Your task to perform on an android device: toggle data saver in the chrome app Image 0: 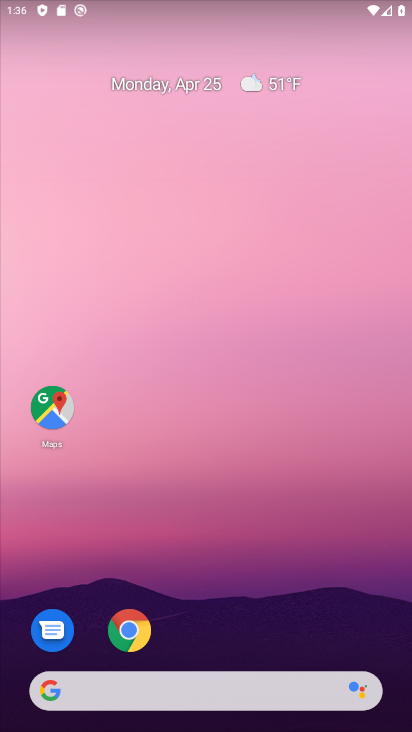
Step 0: drag from (316, 597) to (318, 58)
Your task to perform on an android device: toggle data saver in the chrome app Image 1: 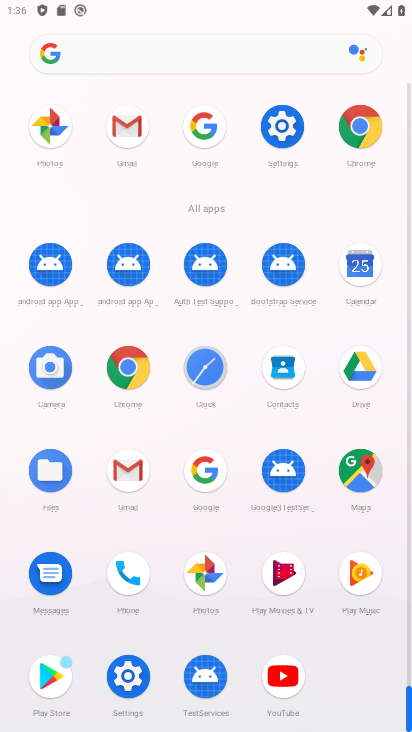
Step 1: click (375, 132)
Your task to perform on an android device: toggle data saver in the chrome app Image 2: 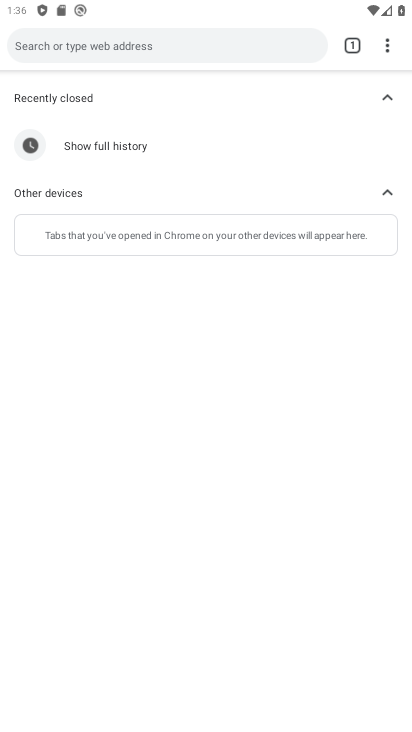
Step 2: click (388, 43)
Your task to perform on an android device: toggle data saver in the chrome app Image 3: 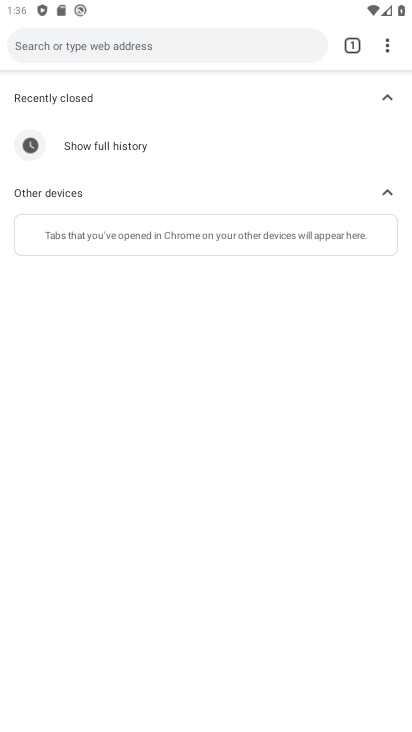
Step 3: drag from (388, 43) to (267, 365)
Your task to perform on an android device: toggle data saver in the chrome app Image 4: 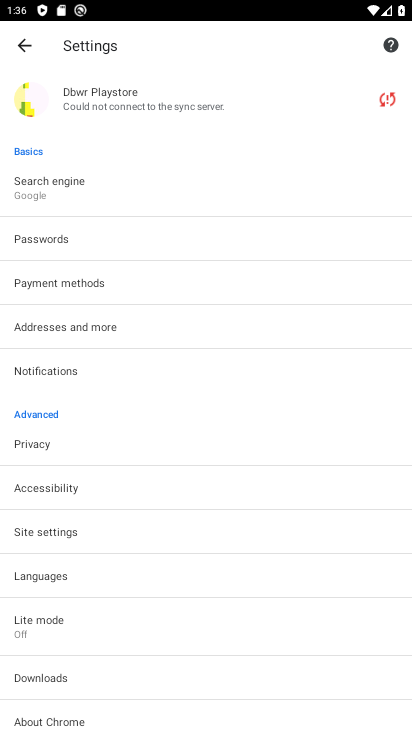
Step 4: drag from (183, 603) to (174, 226)
Your task to perform on an android device: toggle data saver in the chrome app Image 5: 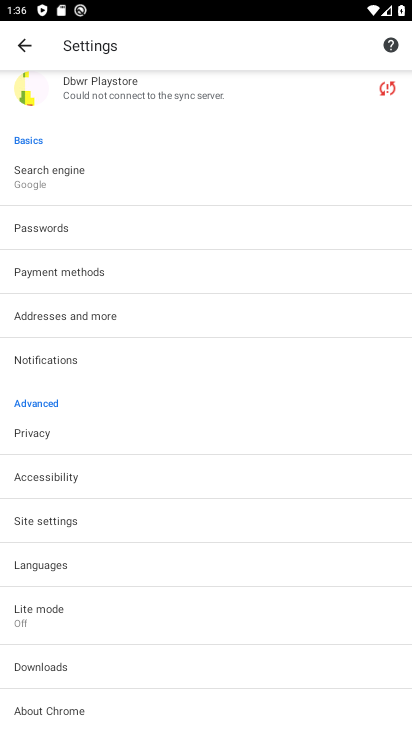
Step 5: click (66, 621)
Your task to perform on an android device: toggle data saver in the chrome app Image 6: 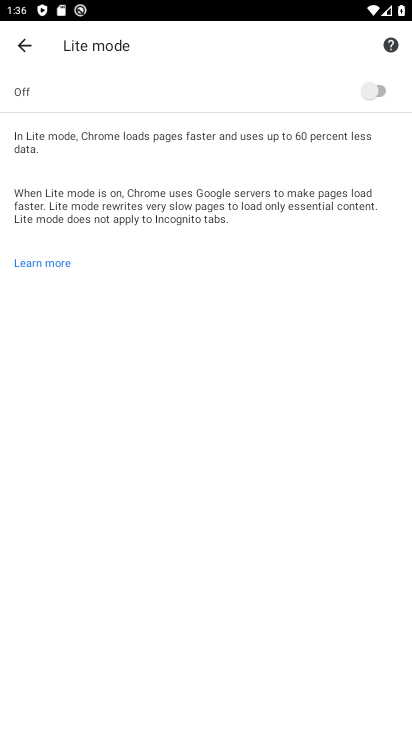
Step 6: click (377, 89)
Your task to perform on an android device: toggle data saver in the chrome app Image 7: 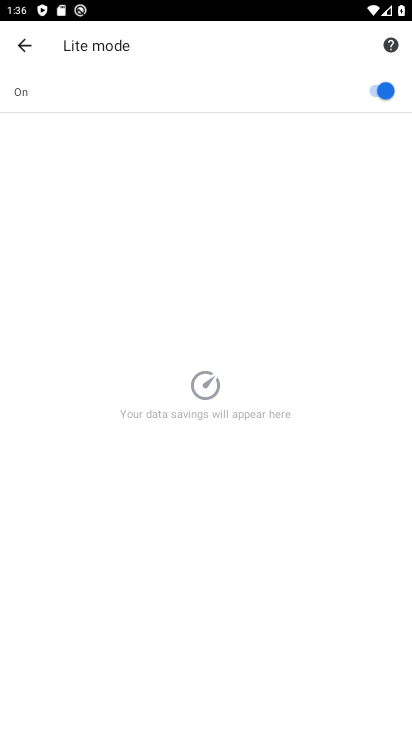
Step 7: task complete